Your task to perform on an android device: choose inbox layout in the gmail app Image 0: 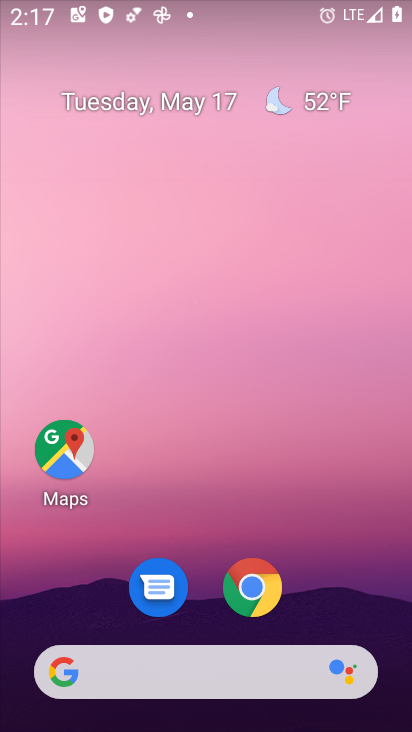
Step 0: drag from (356, 590) to (302, 84)
Your task to perform on an android device: choose inbox layout in the gmail app Image 1: 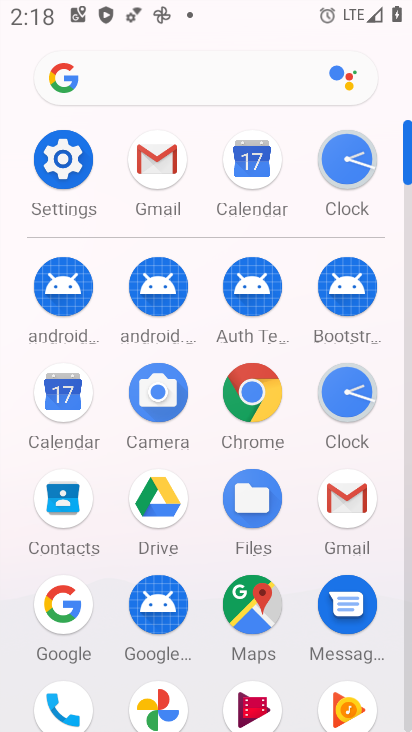
Step 1: click (146, 163)
Your task to perform on an android device: choose inbox layout in the gmail app Image 2: 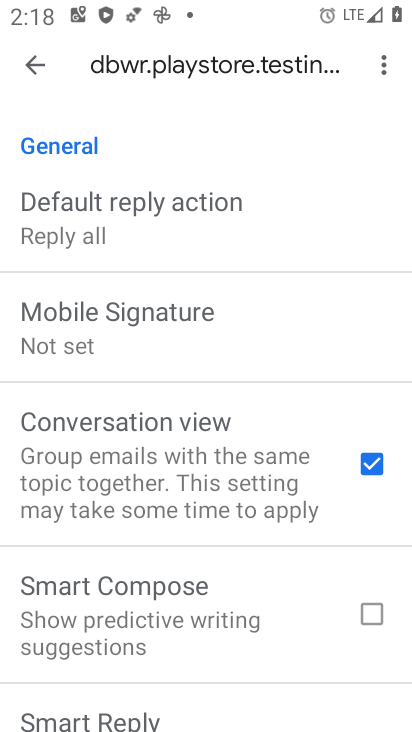
Step 2: click (21, 50)
Your task to perform on an android device: choose inbox layout in the gmail app Image 3: 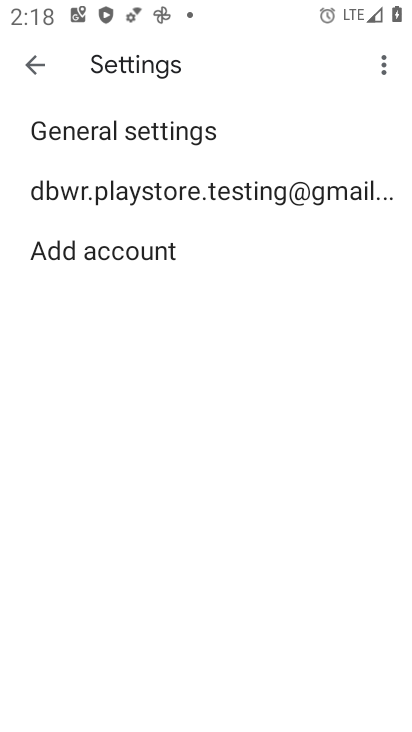
Step 3: click (21, 50)
Your task to perform on an android device: choose inbox layout in the gmail app Image 4: 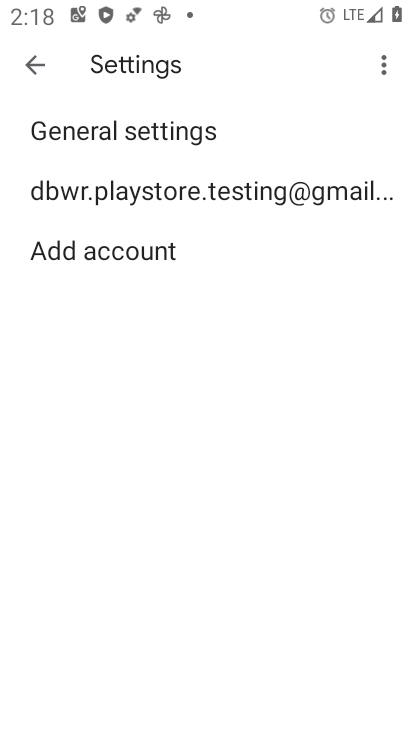
Step 4: click (32, 63)
Your task to perform on an android device: choose inbox layout in the gmail app Image 5: 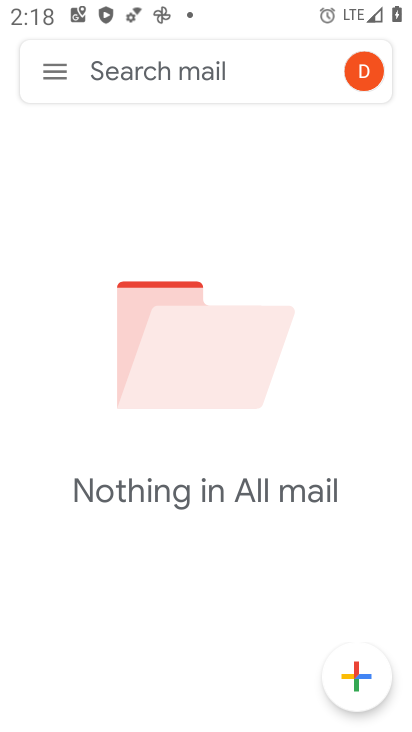
Step 5: click (44, 65)
Your task to perform on an android device: choose inbox layout in the gmail app Image 6: 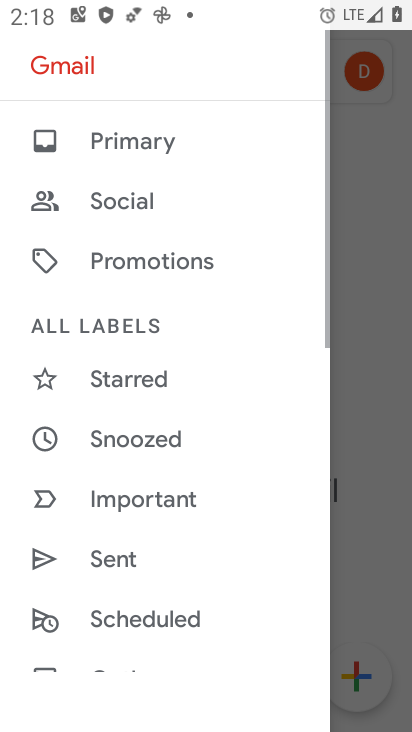
Step 6: drag from (111, 207) to (108, 502)
Your task to perform on an android device: choose inbox layout in the gmail app Image 7: 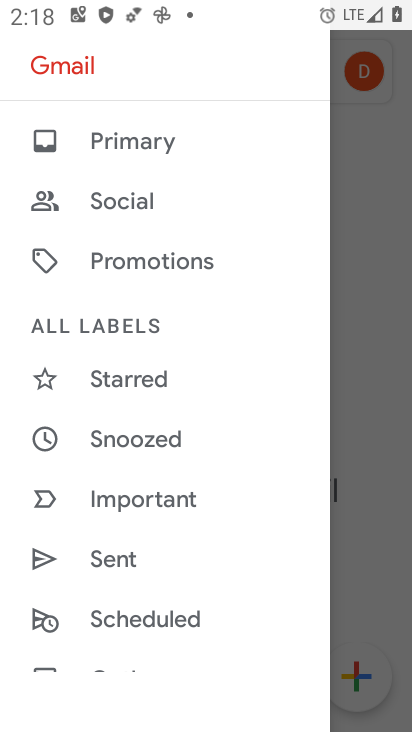
Step 7: drag from (108, 502) to (125, 637)
Your task to perform on an android device: choose inbox layout in the gmail app Image 8: 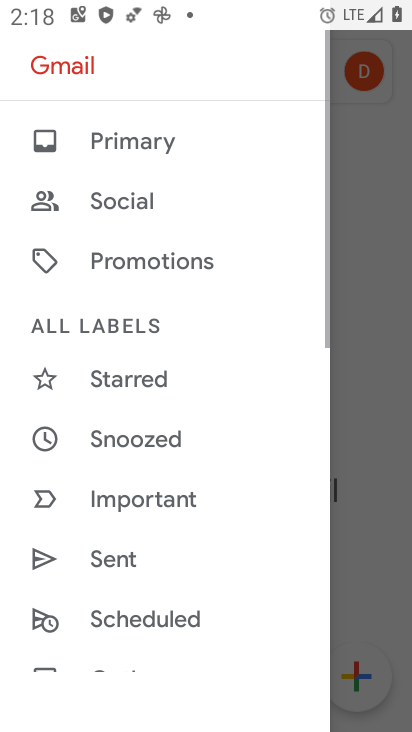
Step 8: click (127, 143)
Your task to perform on an android device: choose inbox layout in the gmail app Image 9: 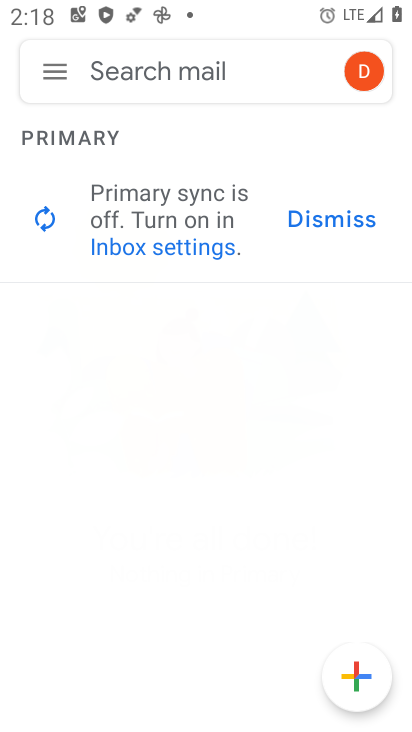
Step 9: task complete